Your task to perform on an android device: stop showing notifications on the lock screen Image 0: 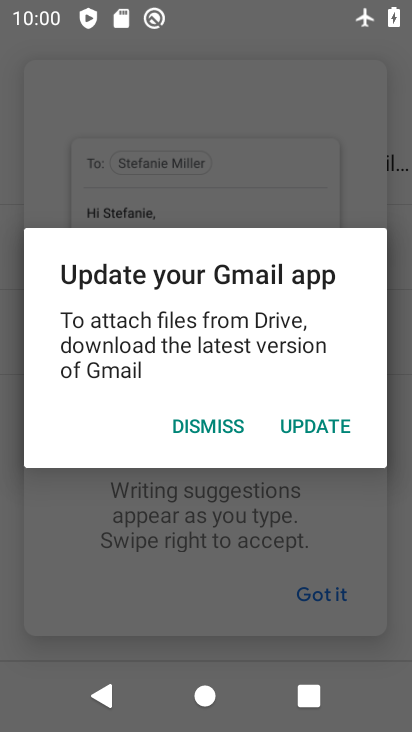
Step 0: press home button
Your task to perform on an android device: stop showing notifications on the lock screen Image 1: 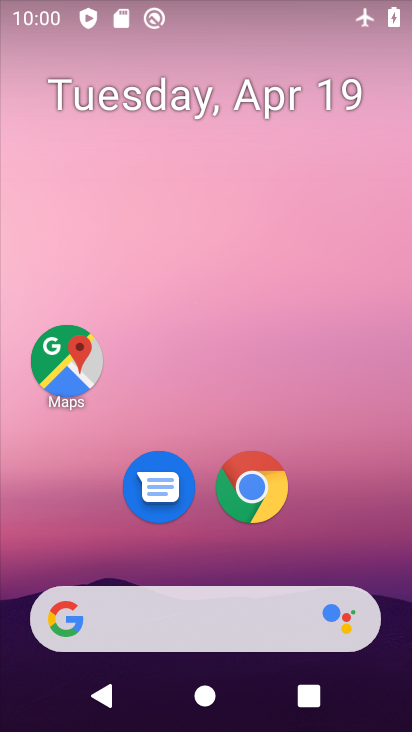
Step 1: drag from (300, 515) to (283, 42)
Your task to perform on an android device: stop showing notifications on the lock screen Image 2: 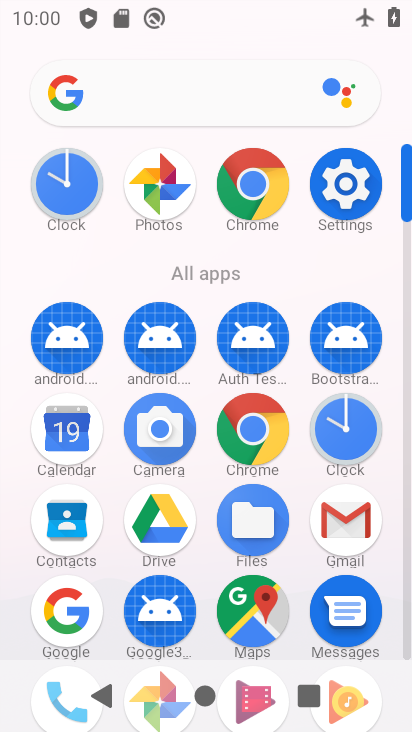
Step 2: click (349, 180)
Your task to perform on an android device: stop showing notifications on the lock screen Image 3: 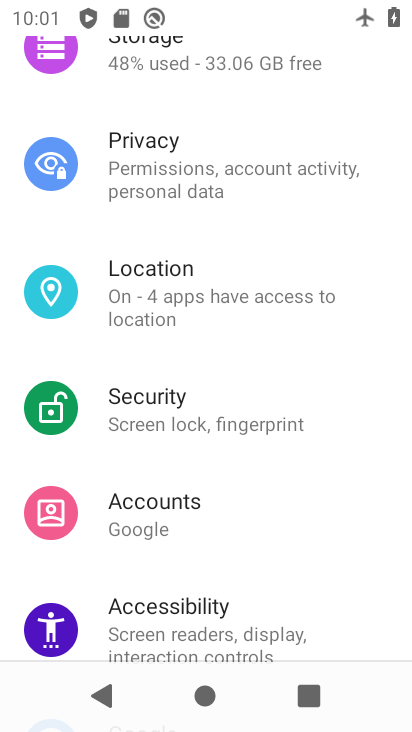
Step 3: drag from (183, 260) to (179, 303)
Your task to perform on an android device: stop showing notifications on the lock screen Image 4: 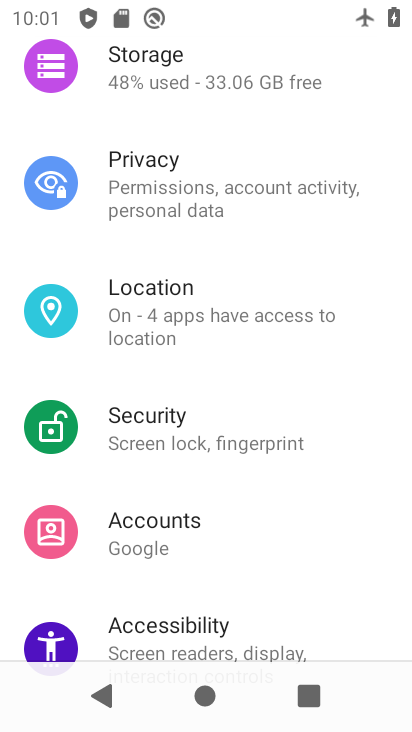
Step 4: drag from (196, 228) to (209, 299)
Your task to perform on an android device: stop showing notifications on the lock screen Image 5: 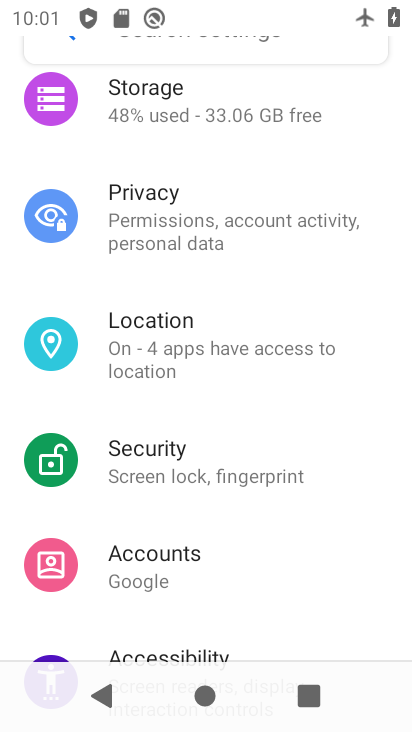
Step 5: drag from (212, 246) to (214, 294)
Your task to perform on an android device: stop showing notifications on the lock screen Image 6: 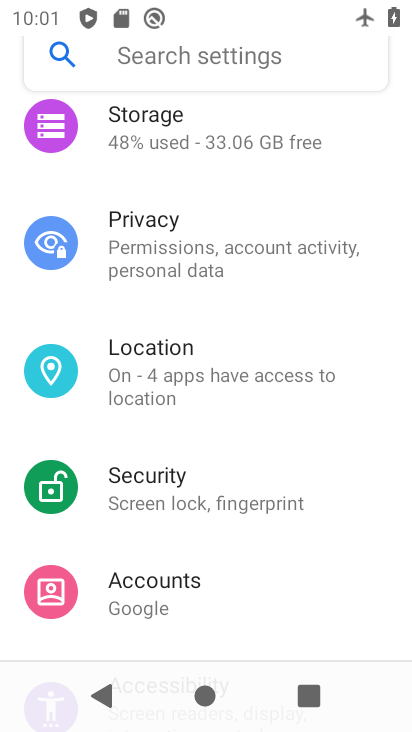
Step 6: drag from (227, 228) to (219, 280)
Your task to perform on an android device: stop showing notifications on the lock screen Image 7: 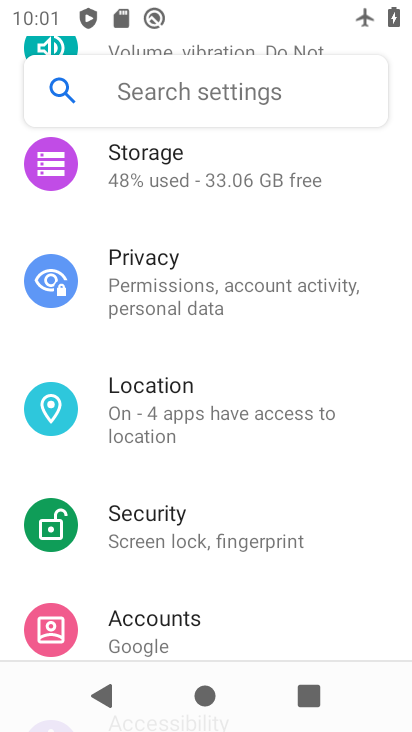
Step 7: drag from (227, 212) to (220, 267)
Your task to perform on an android device: stop showing notifications on the lock screen Image 8: 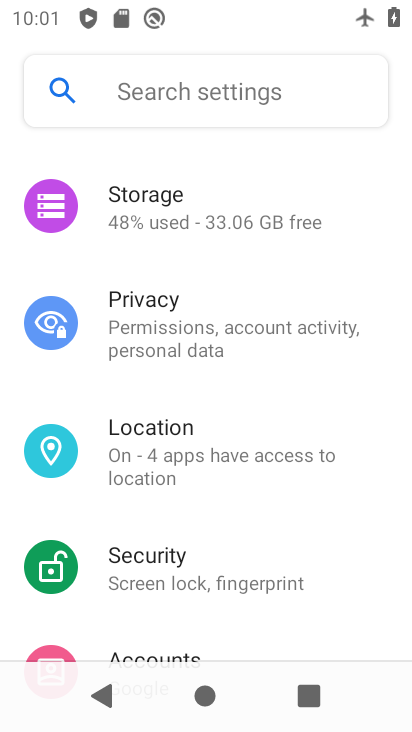
Step 8: drag from (229, 207) to (227, 254)
Your task to perform on an android device: stop showing notifications on the lock screen Image 9: 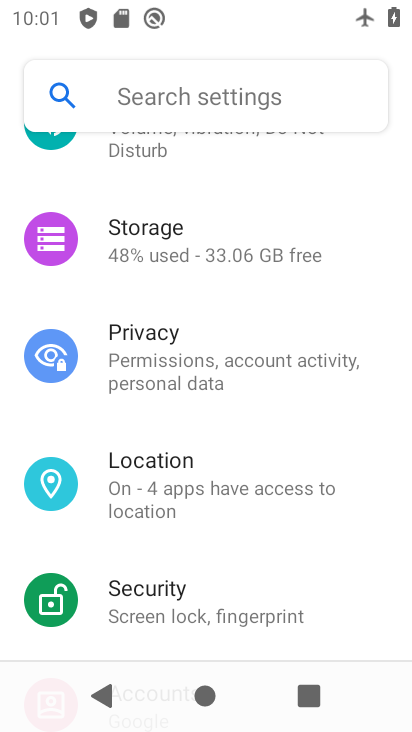
Step 9: drag from (239, 195) to (226, 248)
Your task to perform on an android device: stop showing notifications on the lock screen Image 10: 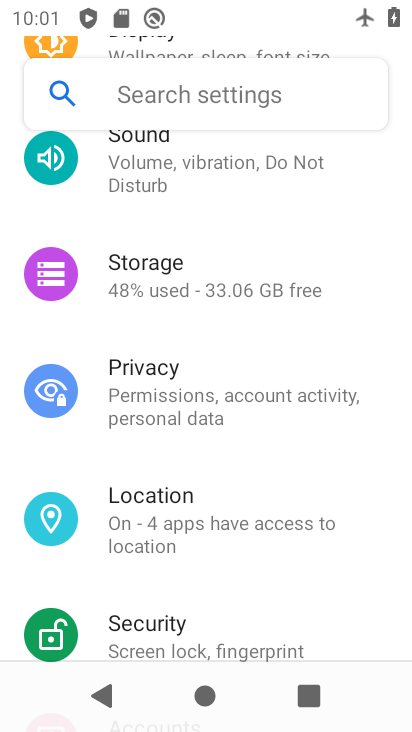
Step 10: drag from (225, 199) to (218, 244)
Your task to perform on an android device: stop showing notifications on the lock screen Image 11: 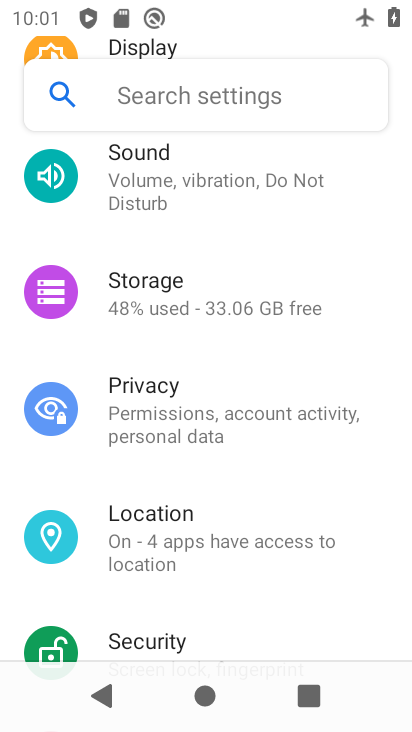
Step 11: drag from (215, 206) to (223, 244)
Your task to perform on an android device: stop showing notifications on the lock screen Image 12: 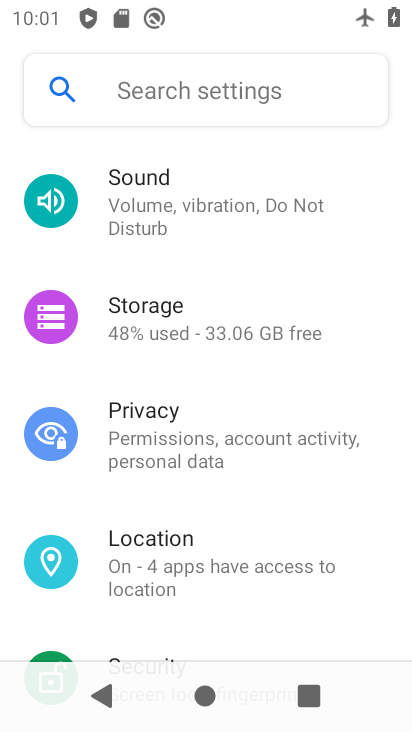
Step 12: drag from (225, 204) to (228, 256)
Your task to perform on an android device: stop showing notifications on the lock screen Image 13: 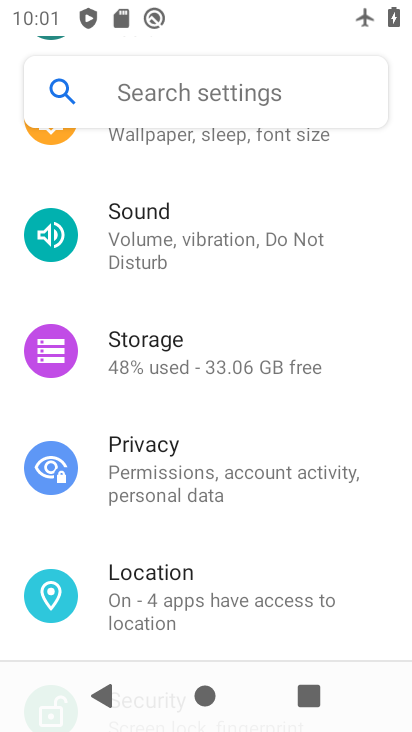
Step 13: drag from (241, 207) to (228, 281)
Your task to perform on an android device: stop showing notifications on the lock screen Image 14: 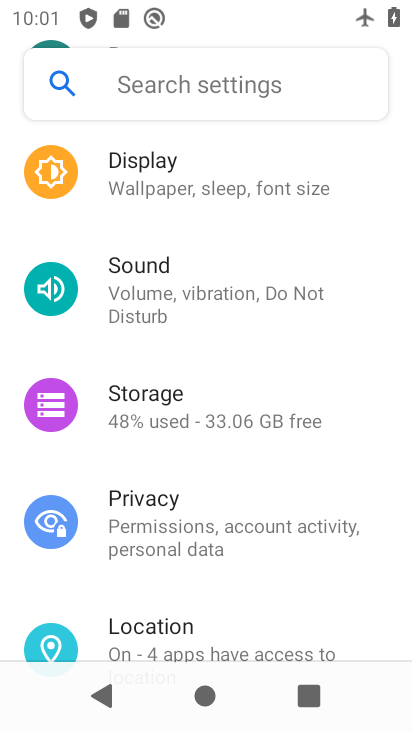
Step 14: drag from (226, 225) to (230, 286)
Your task to perform on an android device: stop showing notifications on the lock screen Image 15: 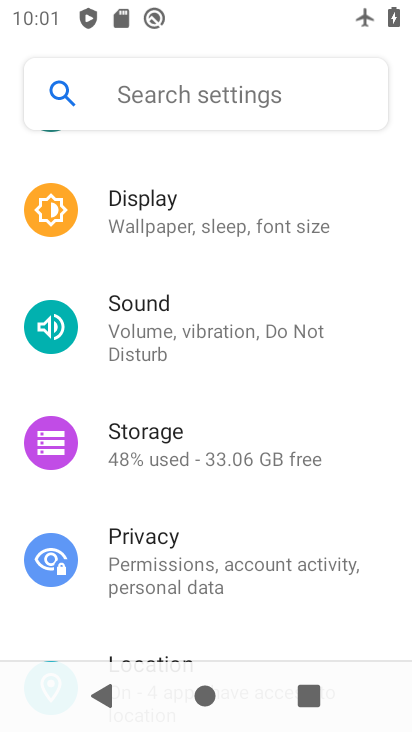
Step 15: drag from (239, 216) to (236, 278)
Your task to perform on an android device: stop showing notifications on the lock screen Image 16: 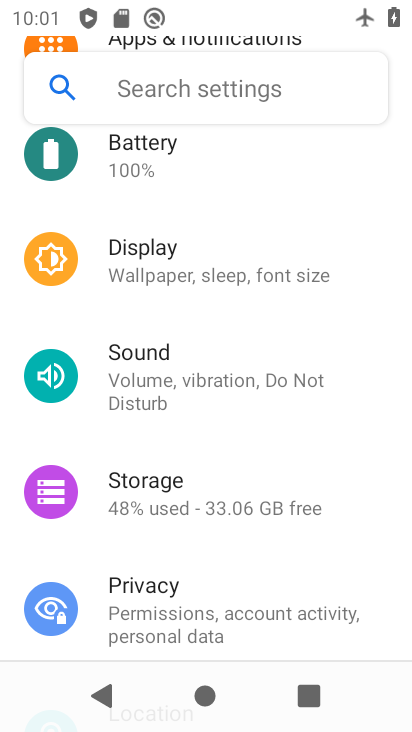
Step 16: drag from (225, 210) to (228, 247)
Your task to perform on an android device: stop showing notifications on the lock screen Image 17: 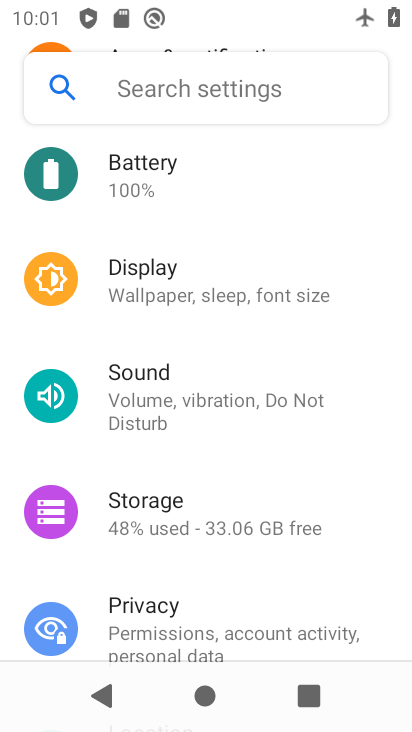
Step 17: drag from (231, 199) to (233, 270)
Your task to perform on an android device: stop showing notifications on the lock screen Image 18: 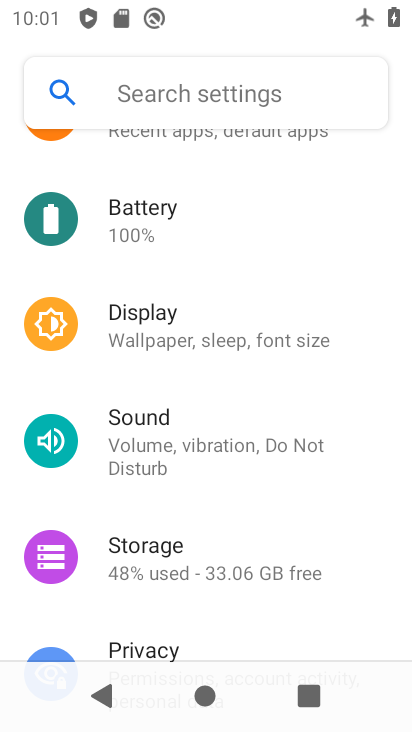
Step 18: drag from (266, 182) to (242, 294)
Your task to perform on an android device: stop showing notifications on the lock screen Image 19: 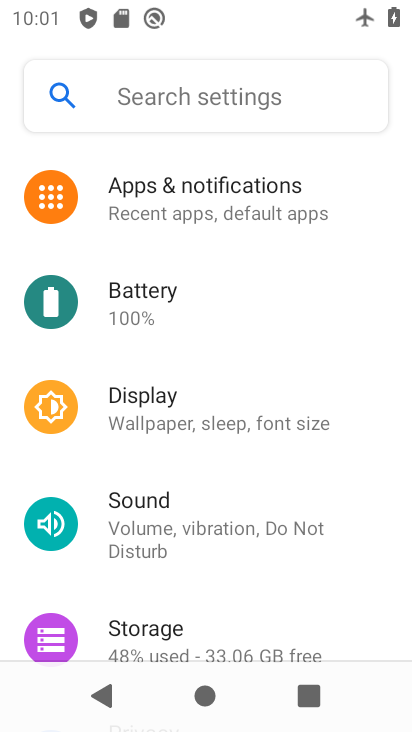
Step 19: click (233, 207)
Your task to perform on an android device: stop showing notifications on the lock screen Image 20: 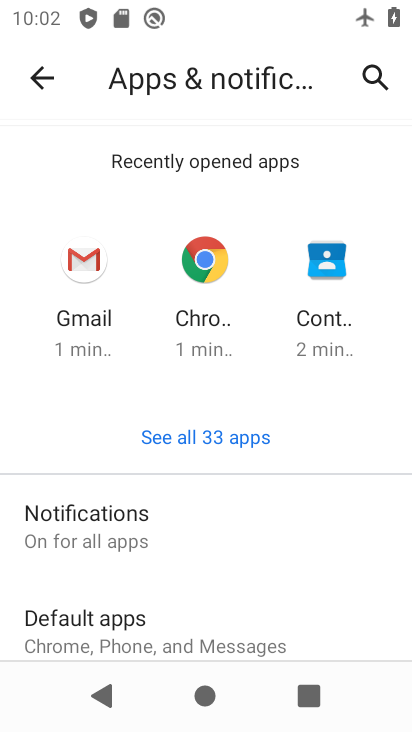
Step 20: click (183, 517)
Your task to perform on an android device: stop showing notifications on the lock screen Image 21: 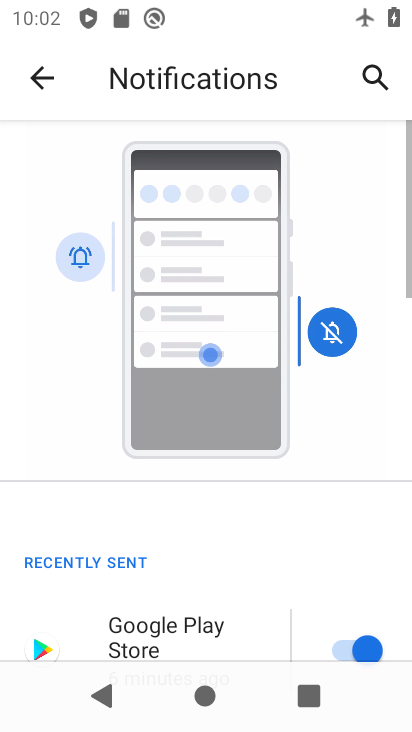
Step 21: drag from (183, 517) to (252, 275)
Your task to perform on an android device: stop showing notifications on the lock screen Image 22: 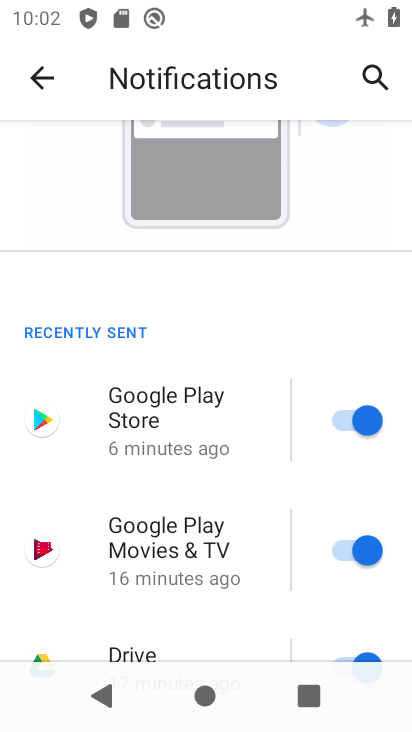
Step 22: drag from (231, 555) to (301, 304)
Your task to perform on an android device: stop showing notifications on the lock screen Image 23: 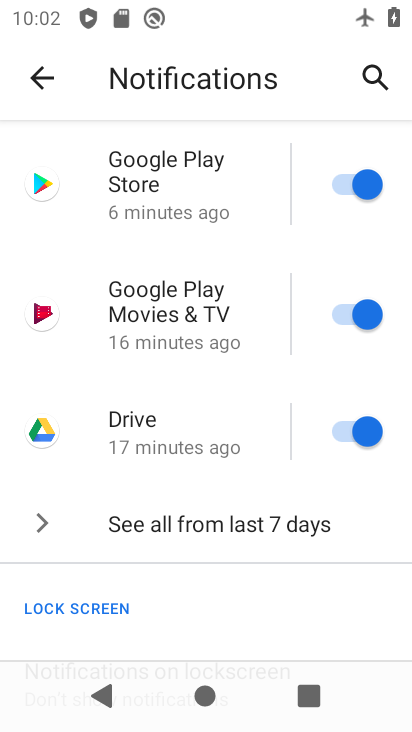
Step 23: drag from (210, 582) to (248, 365)
Your task to perform on an android device: stop showing notifications on the lock screen Image 24: 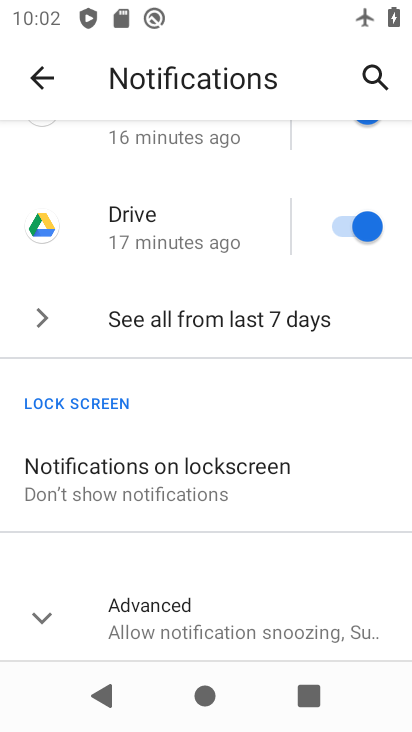
Step 24: click (182, 470)
Your task to perform on an android device: stop showing notifications on the lock screen Image 25: 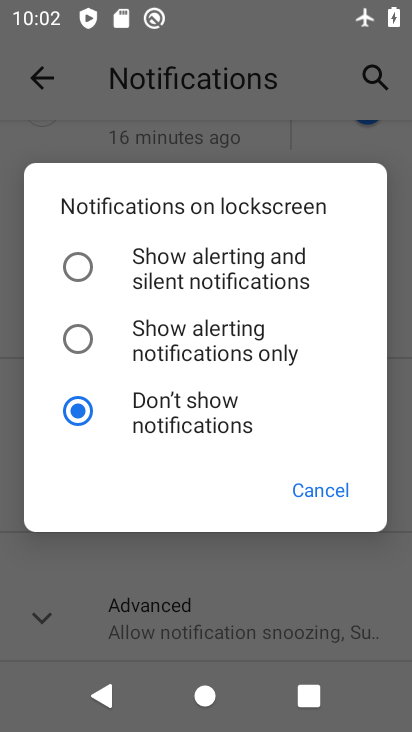
Step 25: click (195, 422)
Your task to perform on an android device: stop showing notifications on the lock screen Image 26: 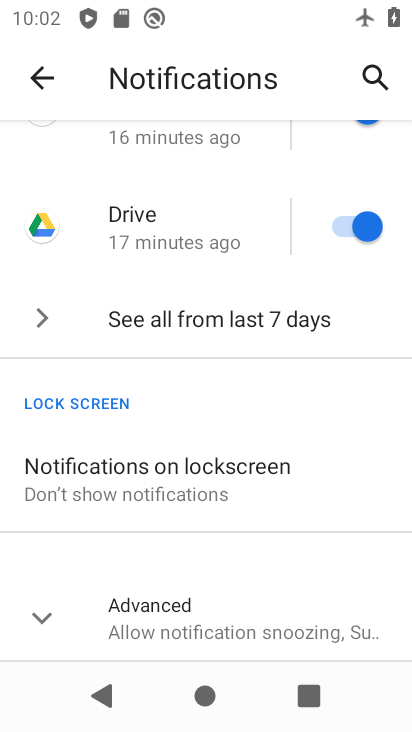
Step 26: task complete